Your task to perform on an android device: Open internet settings Image 0: 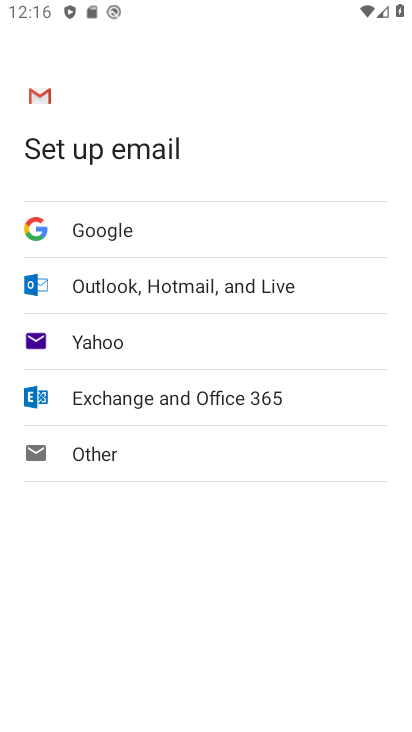
Step 0: press home button
Your task to perform on an android device: Open internet settings Image 1: 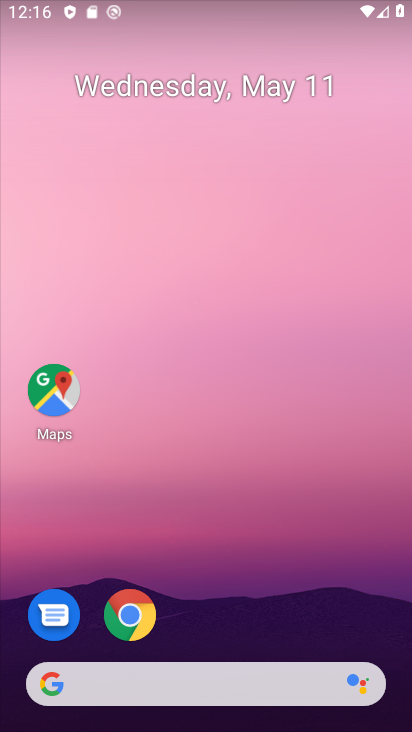
Step 1: drag from (258, 628) to (331, 36)
Your task to perform on an android device: Open internet settings Image 2: 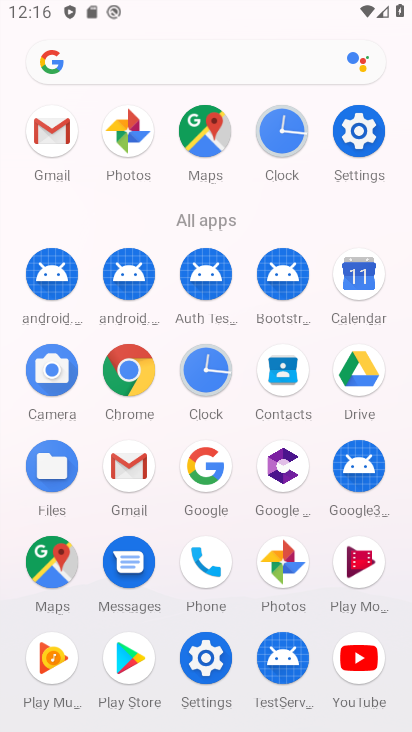
Step 2: click (349, 134)
Your task to perform on an android device: Open internet settings Image 3: 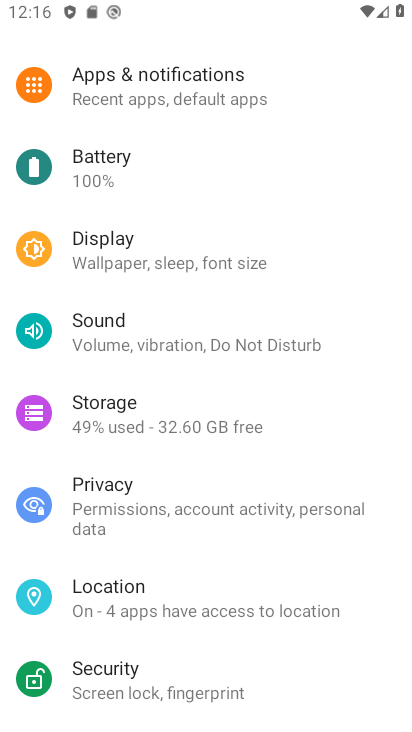
Step 3: drag from (149, 162) to (136, 608)
Your task to perform on an android device: Open internet settings Image 4: 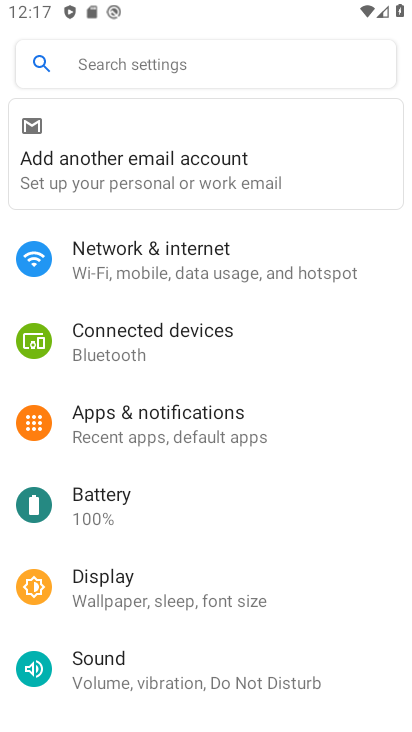
Step 4: click (159, 250)
Your task to perform on an android device: Open internet settings Image 5: 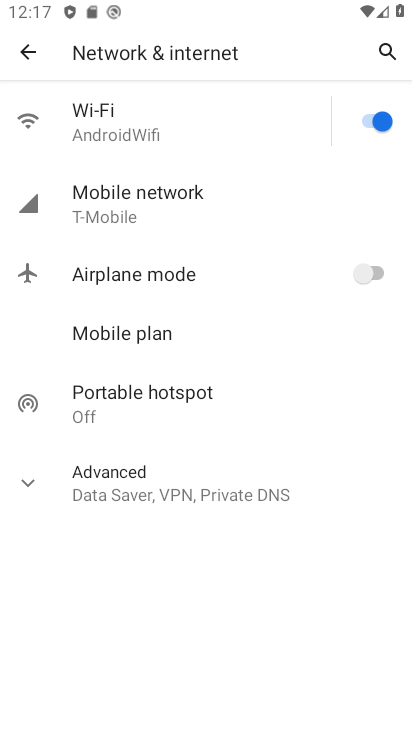
Step 5: click (124, 222)
Your task to perform on an android device: Open internet settings Image 6: 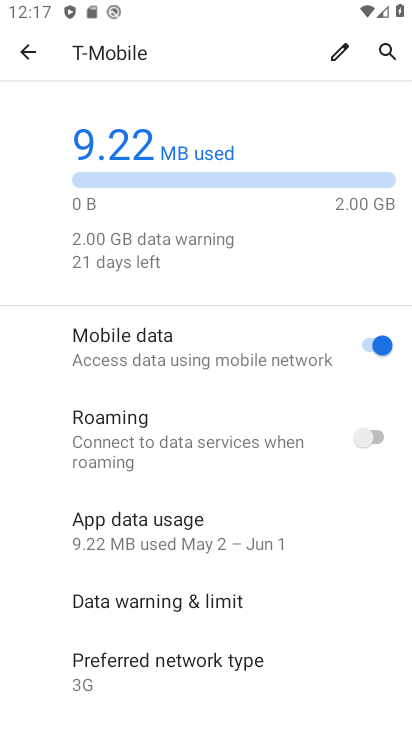
Step 6: task complete